Your task to perform on an android device: What is the news today? Image 0: 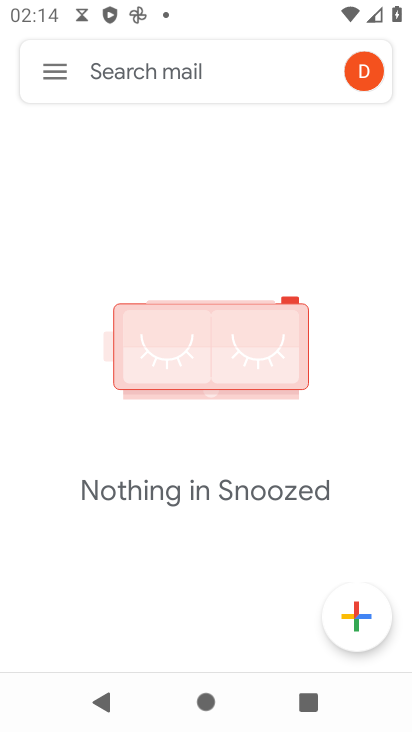
Step 0: press home button
Your task to perform on an android device: What is the news today? Image 1: 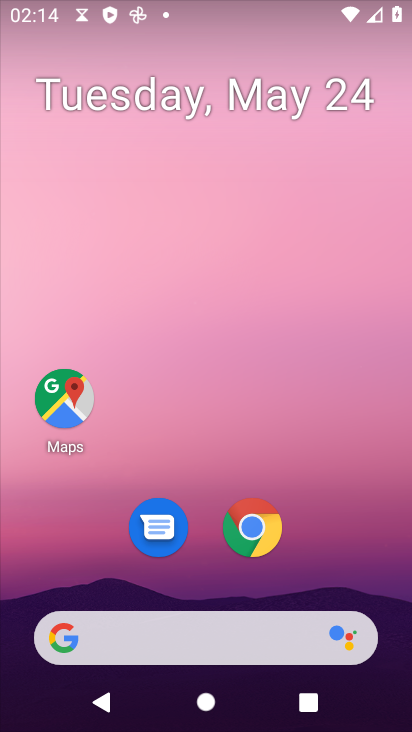
Step 1: click (65, 637)
Your task to perform on an android device: What is the news today? Image 2: 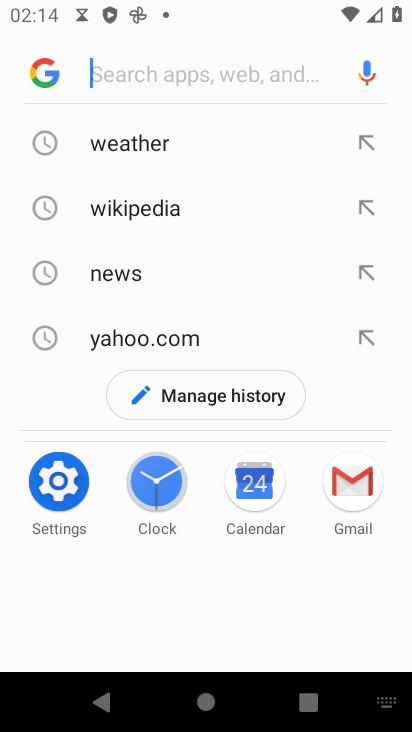
Step 2: click (137, 277)
Your task to perform on an android device: What is the news today? Image 3: 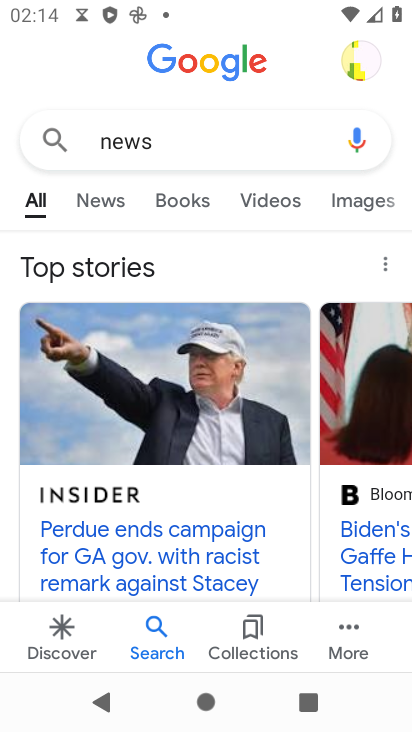
Step 3: click (103, 197)
Your task to perform on an android device: What is the news today? Image 4: 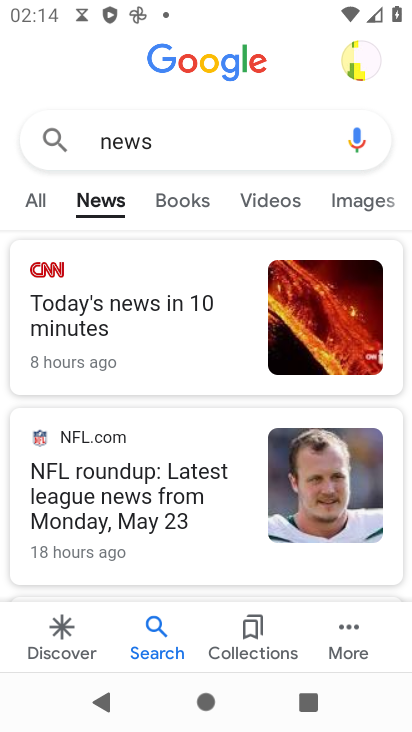
Step 4: task complete